Your task to perform on an android device: Open sound settings Image 0: 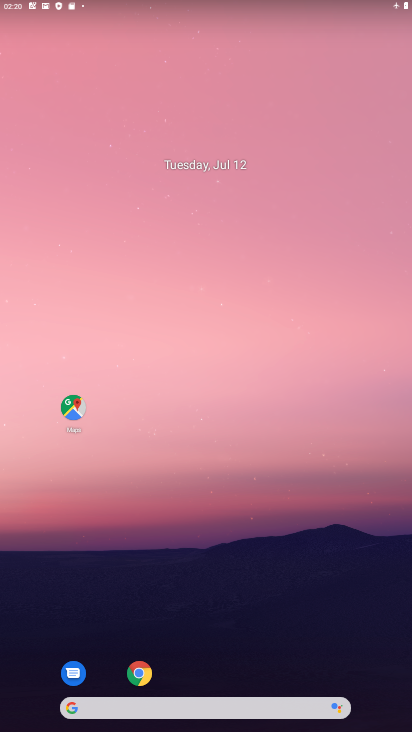
Step 0: press home button
Your task to perform on an android device: Open sound settings Image 1: 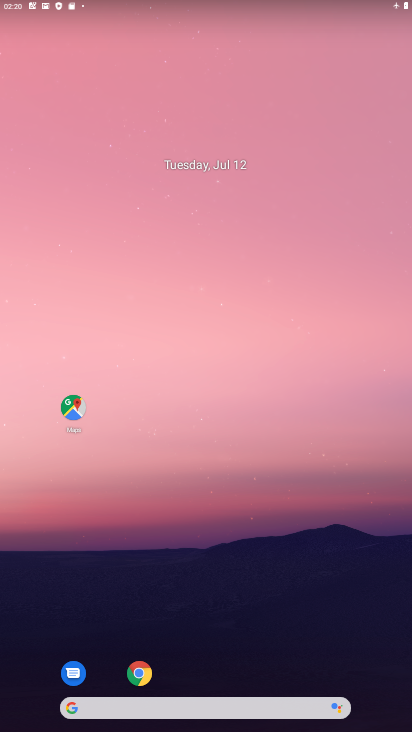
Step 1: drag from (241, 637) to (254, 46)
Your task to perform on an android device: Open sound settings Image 2: 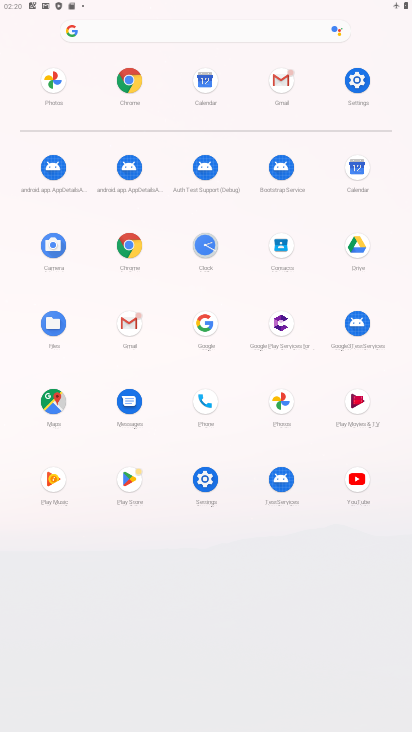
Step 2: click (361, 76)
Your task to perform on an android device: Open sound settings Image 3: 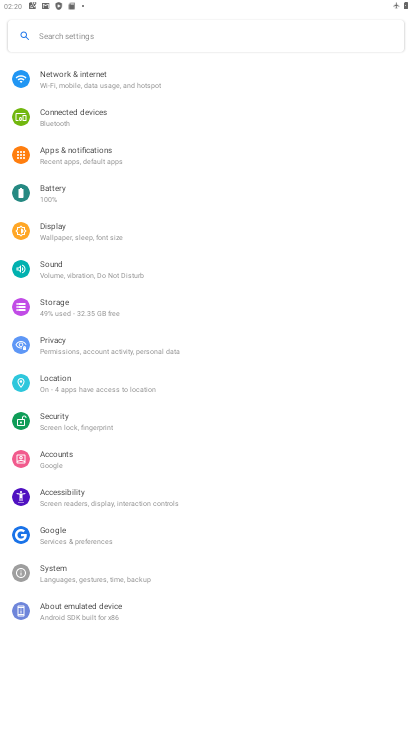
Step 3: click (89, 271)
Your task to perform on an android device: Open sound settings Image 4: 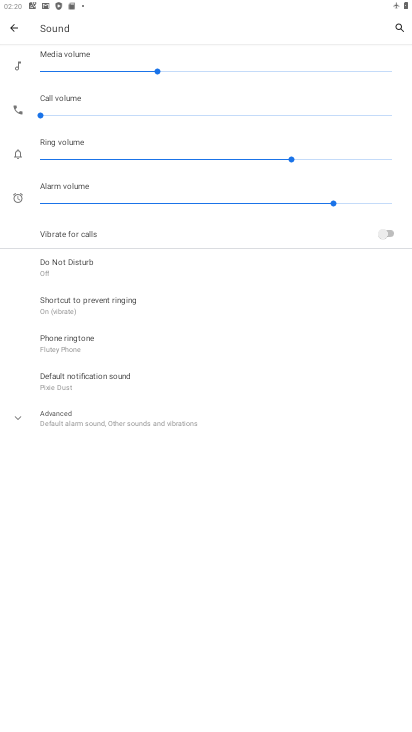
Step 4: task complete